Your task to perform on an android device: Search for vegetarian restaurants on Maps Image 0: 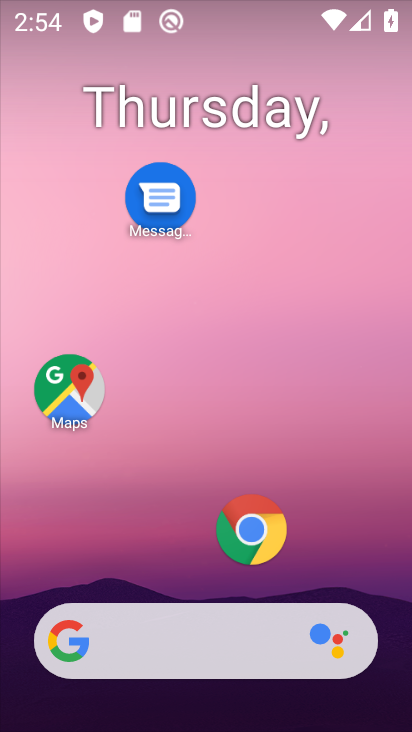
Step 0: click (69, 393)
Your task to perform on an android device: Search for vegetarian restaurants on Maps Image 1: 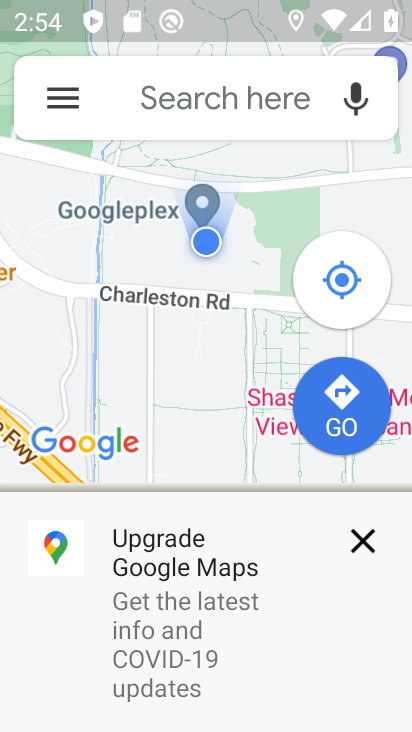
Step 1: click (166, 123)
Your task to perform on an android device: Search for vegetarian restaurants on Maps Image 2: 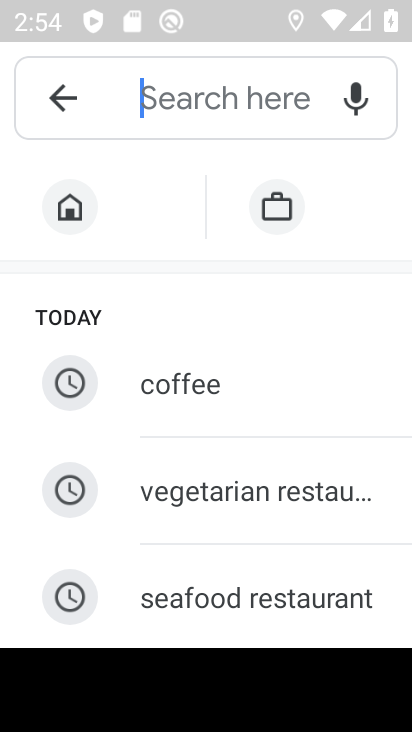
Step 2: type "vegetarian restaurants"
Your task to perform on an android device: Search for vegetarian restaurants on Maps Image 3: 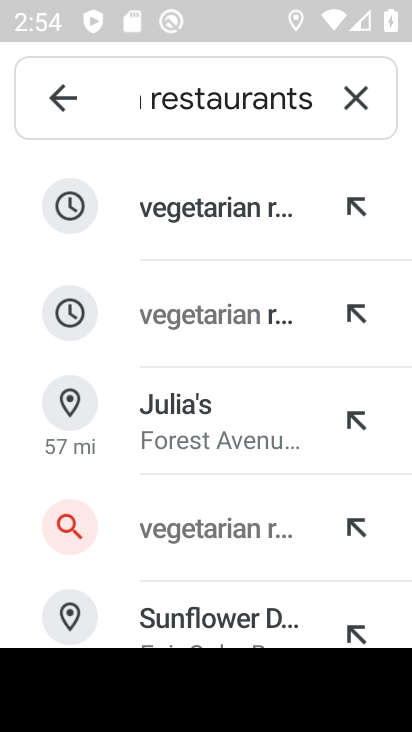
Step 3: click (253, 205)
Your task to perform on an android device: Search for vegetarian restaurants on Maps Image 4: 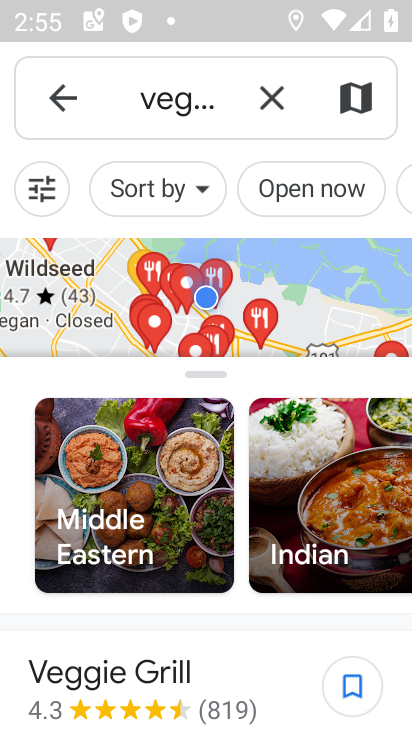
Step 4: task complete